Your task to perform on an android device: Go to notification settings Image 0: 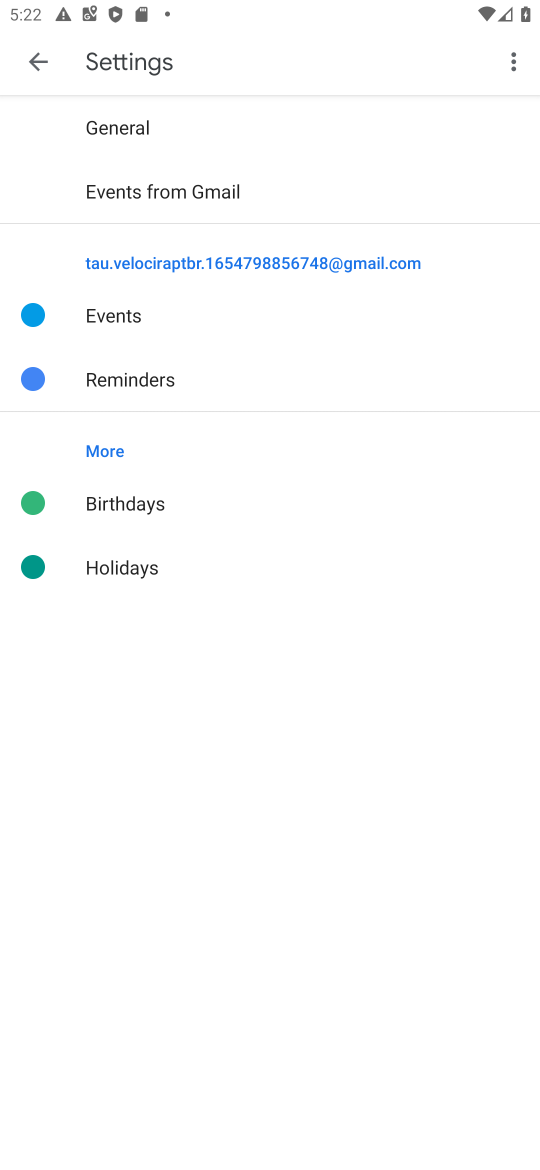
Step 0: press home button
Your task to perform on an android device: Go to notification settings Image 1: 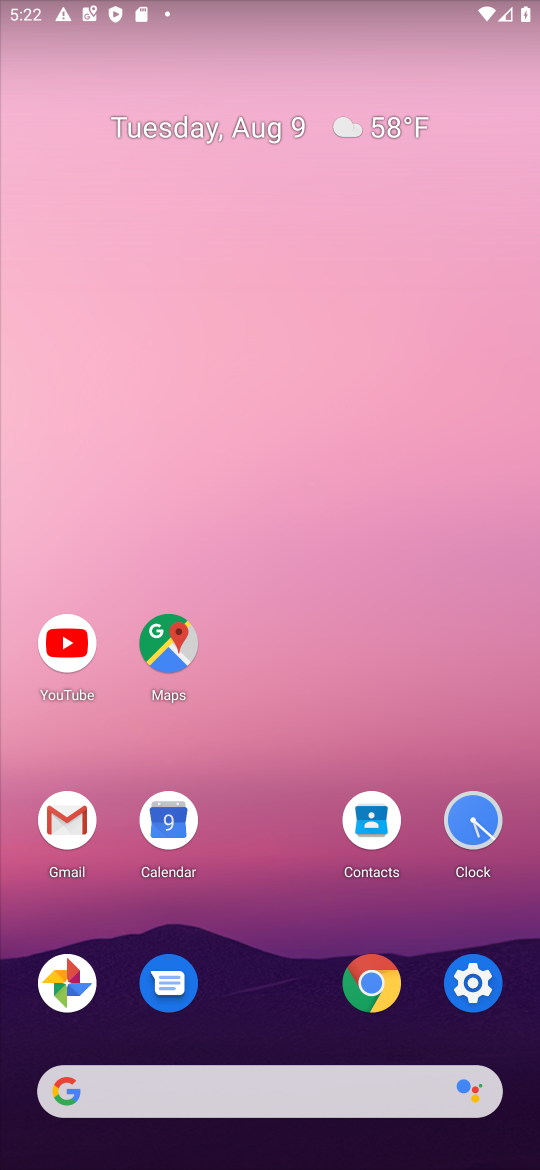
Step 1: click (474, 986)
Your task to perform on an android device: Go to notification settings Image 2: 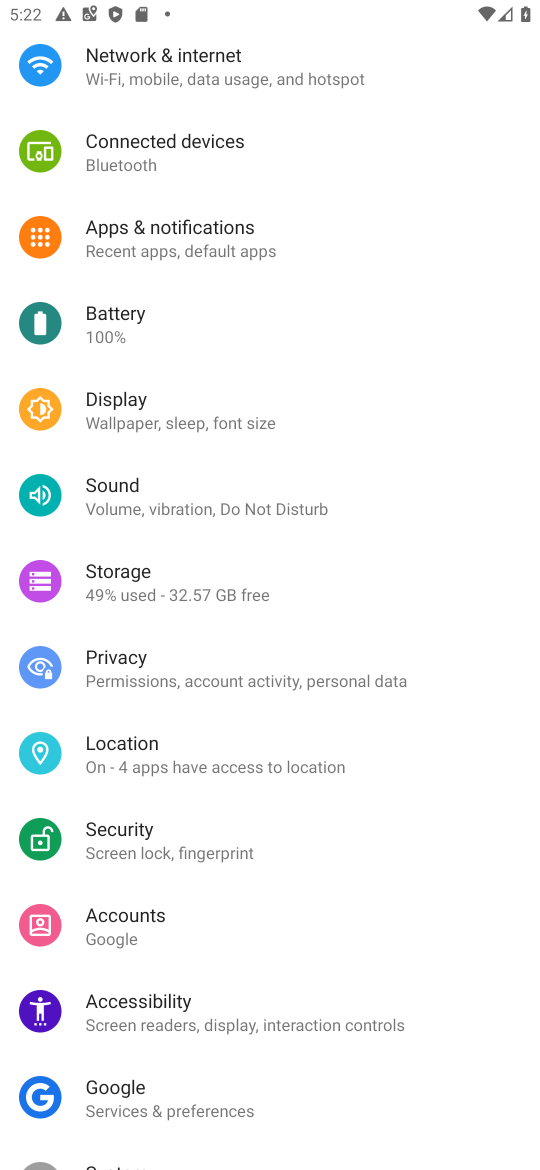
Step 2: click (152, 222)
Your task to perform on an android device: Go to notification settings Image 3: 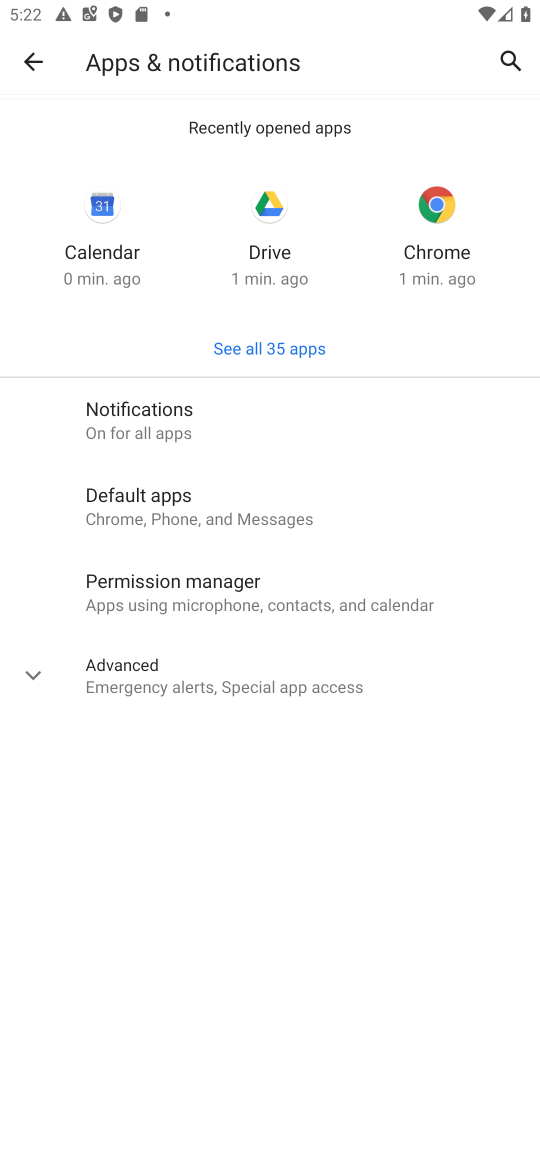
Step 3: task complete